Your task to perform on an android device: Go to Maps Image 0: 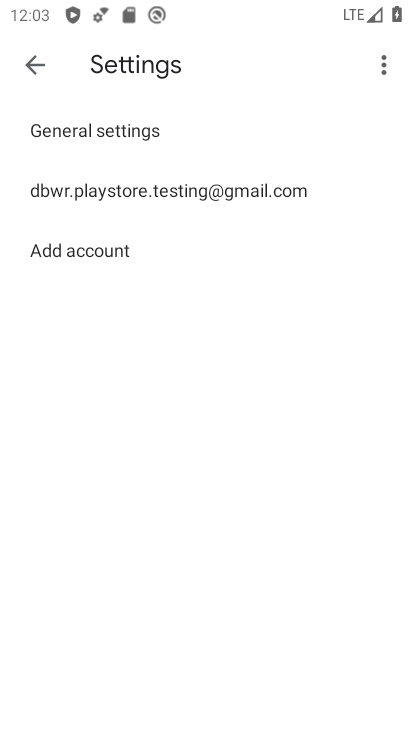
Step 0: press back button
Your task to perform on an android device: Go to Maps Image 1: 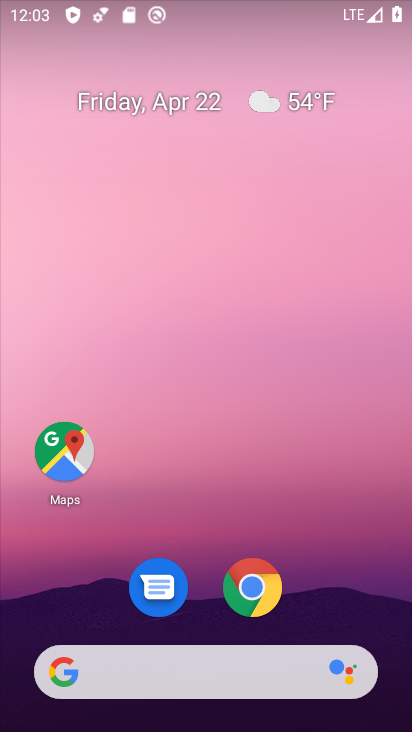
Step 1: click (66, 455)
Your task to perform on an android device: Go to Maps Image 2: 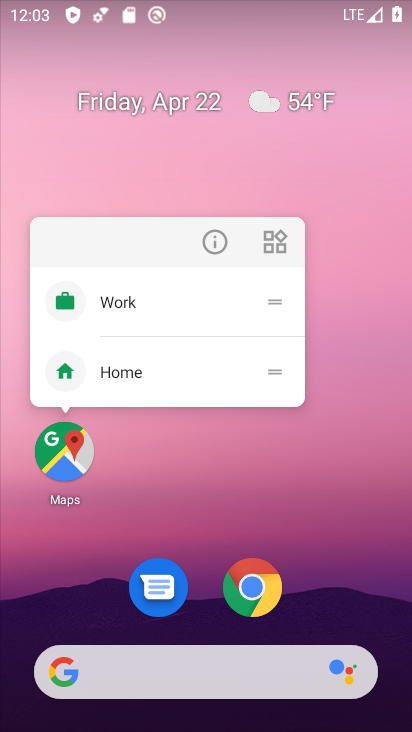
Step 2: click (66, 455)
Your task to perform on an android device: Go to Maps Image 3: 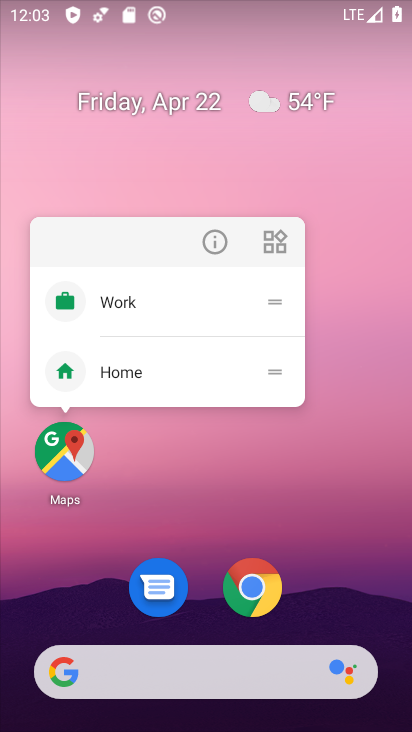
Step 3: click (69, 437)
Your task to perform on an android device: Go to Maps Image 4: 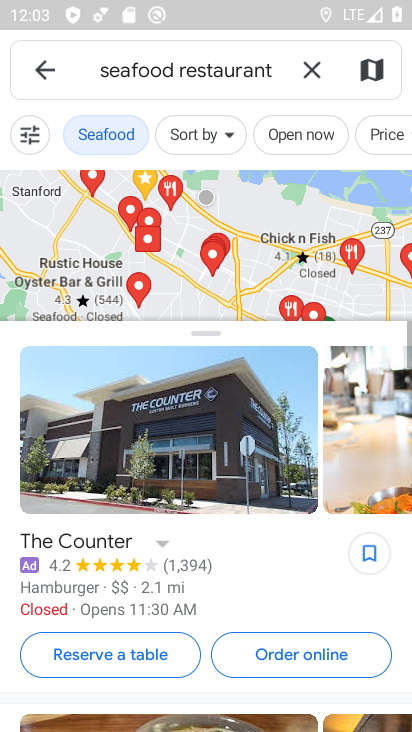
Step 4: task complete